Your task to perform on an android device: check the backup settings in the google photos Image 0: 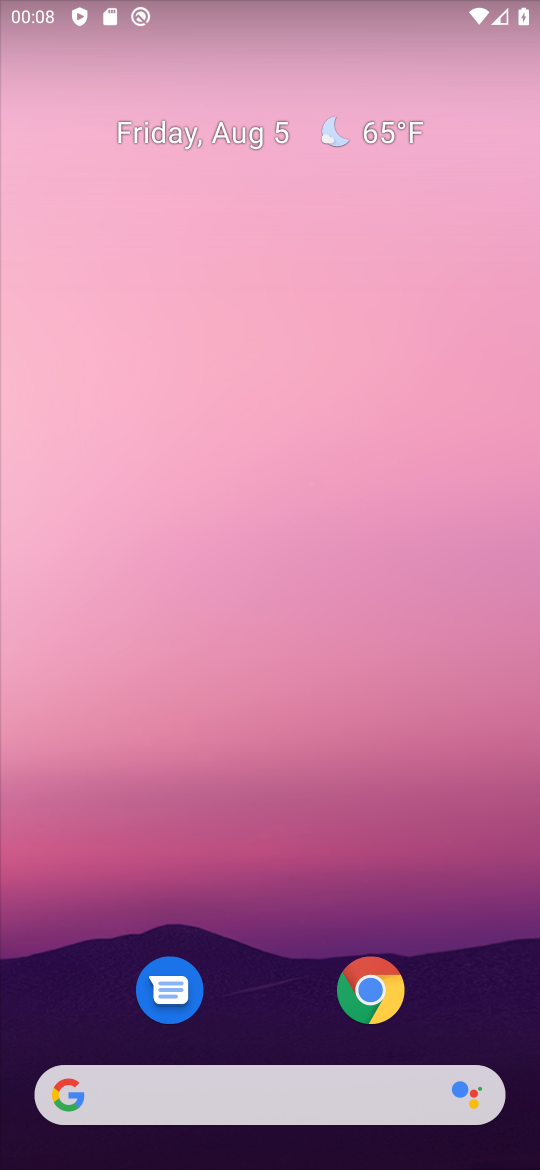
Step 0: drag from (504, 1005) to (432, 186)
Your task to perform on an android device: check the backup settings in the google photos Image 1: 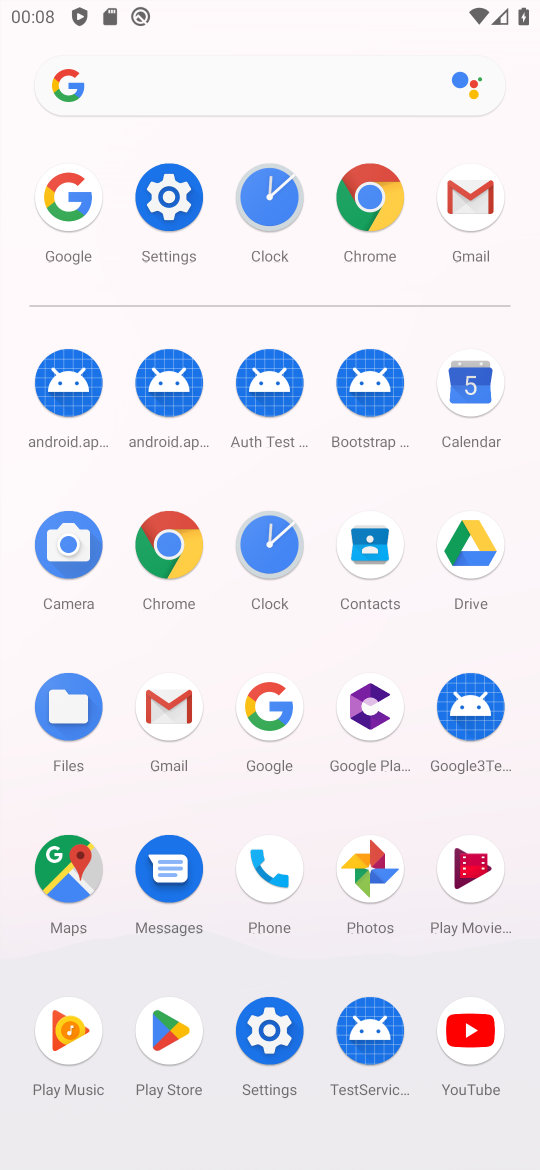
Step 1: click (374, 879)
Your task to perform on an android device: check the backup settings in the google photos Image 2: 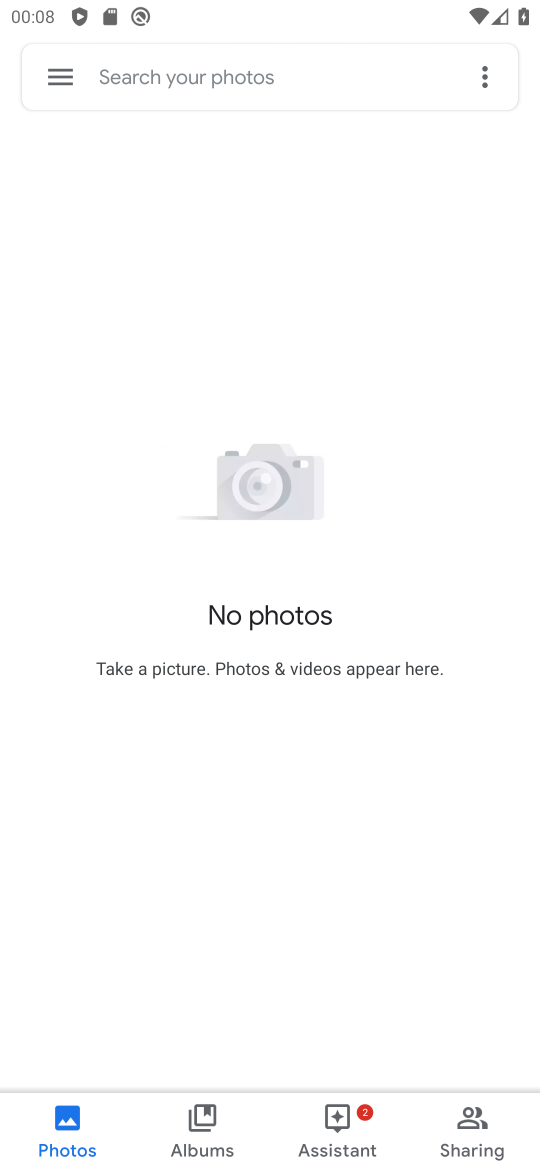
Step 2: click (63, 84)
Your task to perform on an android device: check the backup settings in the google photos Image 3: 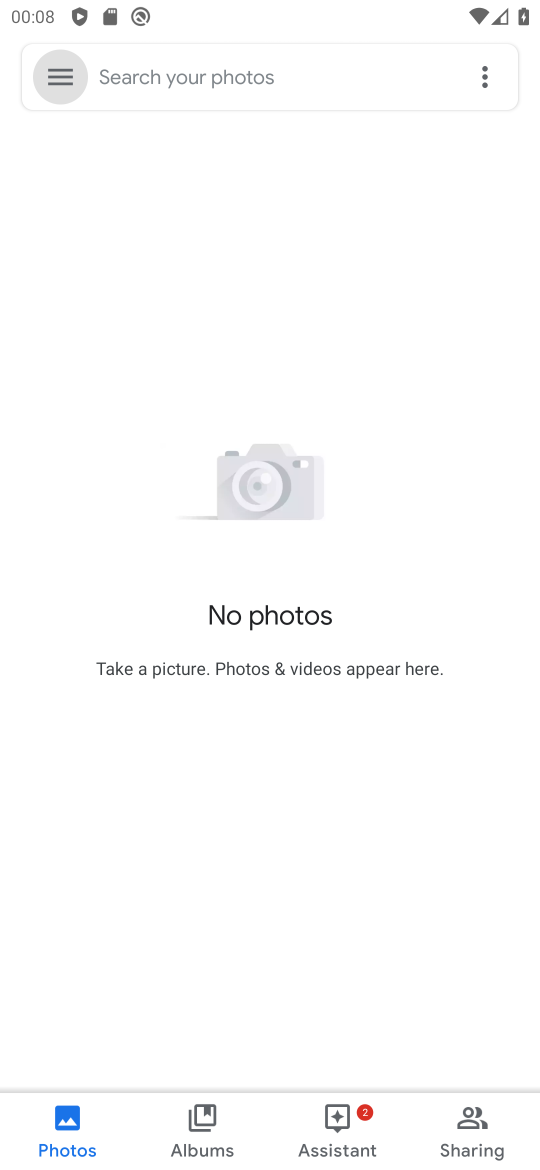
Step 3: click (60, 67)
Your task to perform on an android device: check the backup settings in the google photos Image 4: 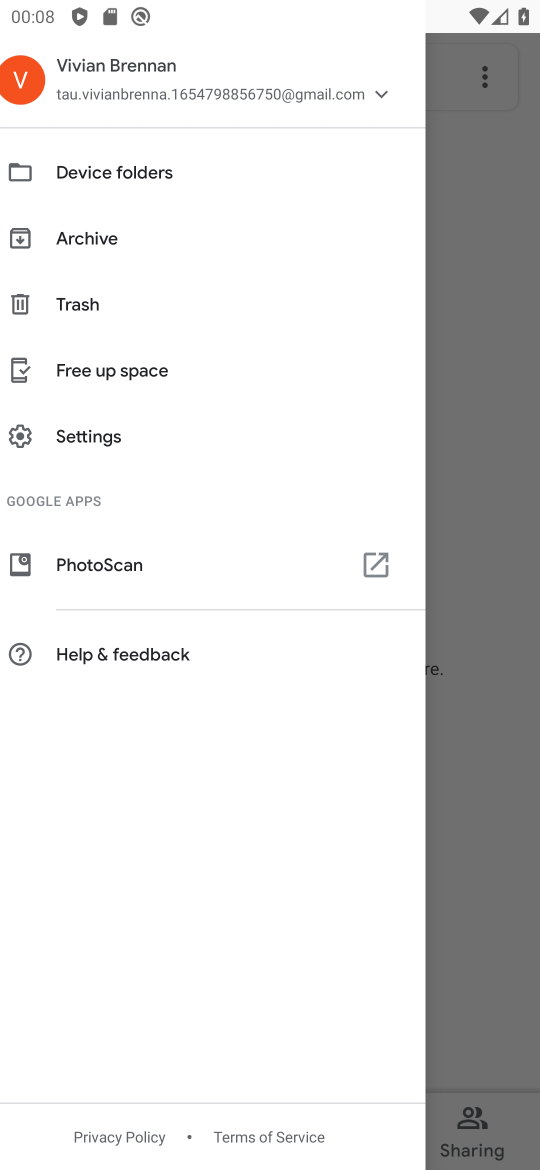
Step 4: click (47, 89)
Your task to perform on an android device: check the backup settings in the google photos Image 5: 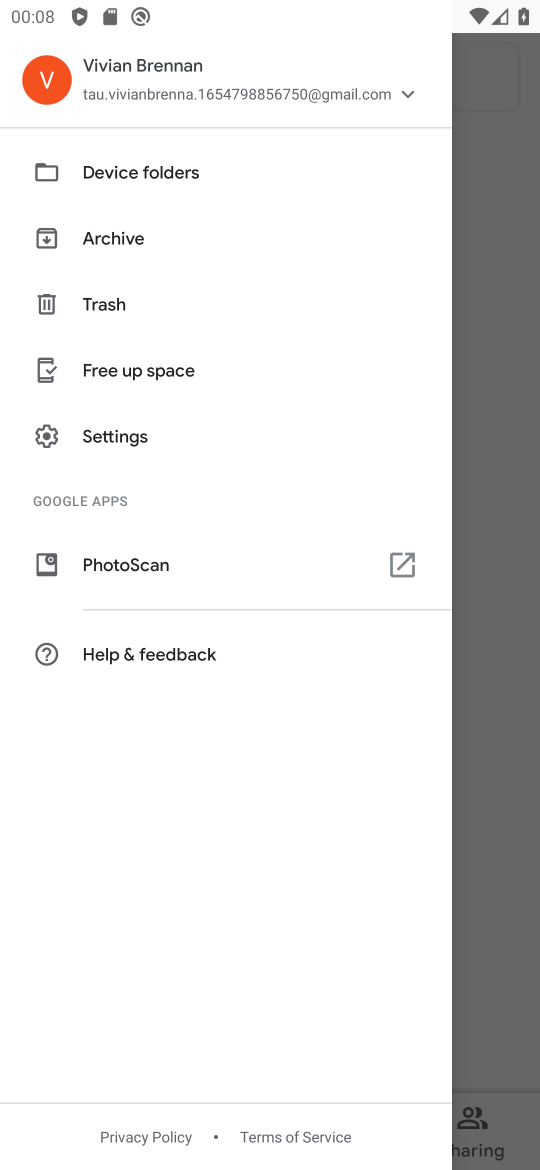
Step 5: click (136, 436)
Your task to perform on an android device: check the backup settings in the google photos Image 6: 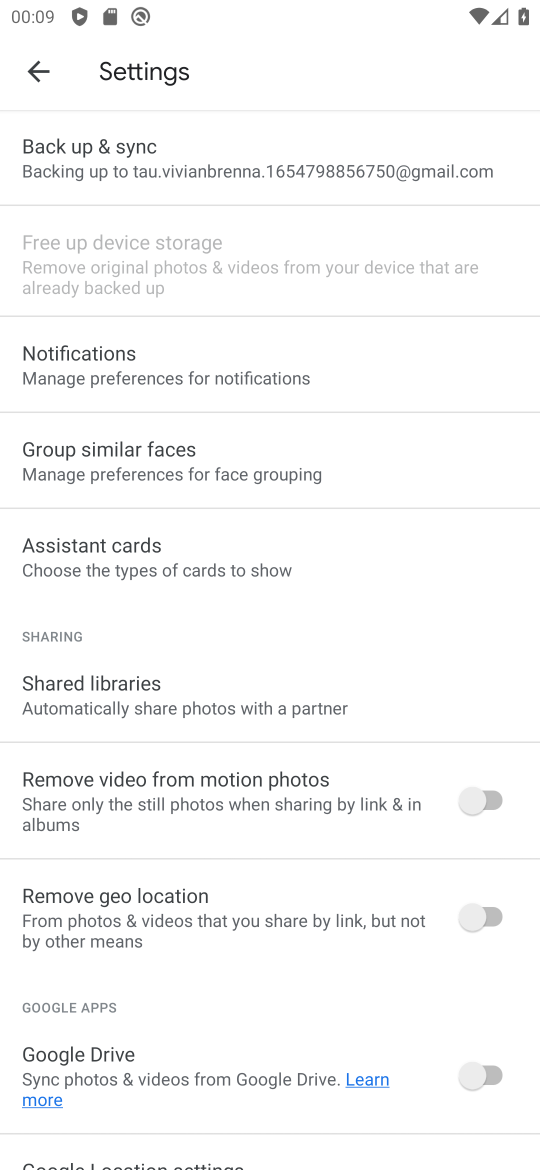
Step 6: click (232, 142)
Your task to perform on an android device: check the backup settings in the google photos Image 7: 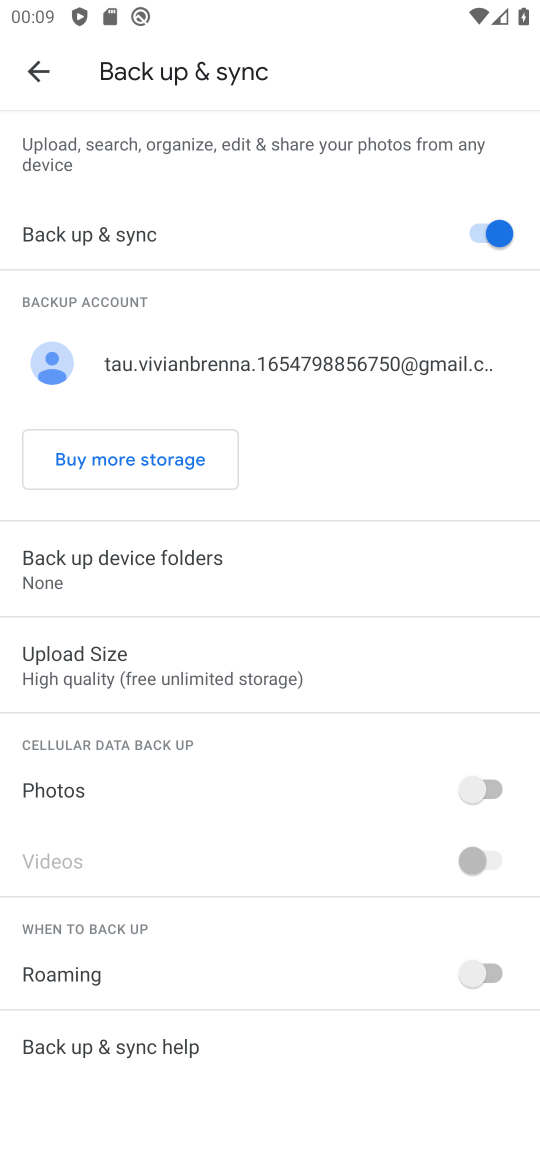
Step 7: task complete